Your task to perform on an android device: turn on showing notifications on the lock screen Image 0: 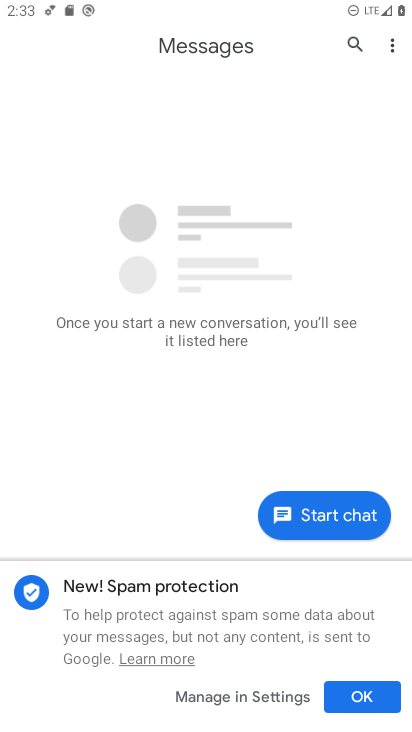
Step 0: press home button
Your task to perform on an android device: turn on showing notifications on the lock screen Image 1: 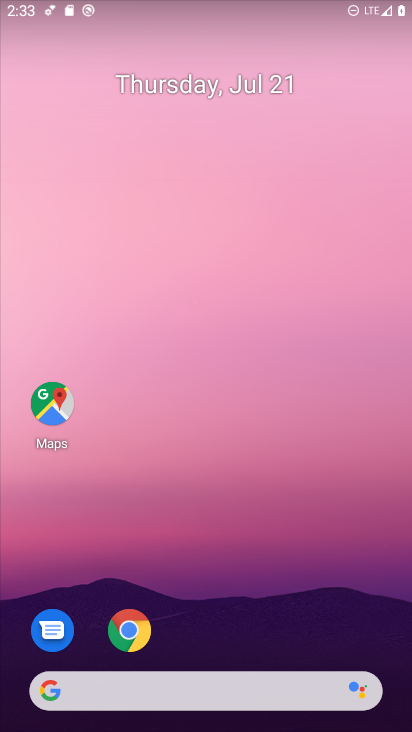
Step 1: drag from (333, 572) to (291, 0)
Your task to perform on an android device: turn on showing notifications on the lock screen Image 2: 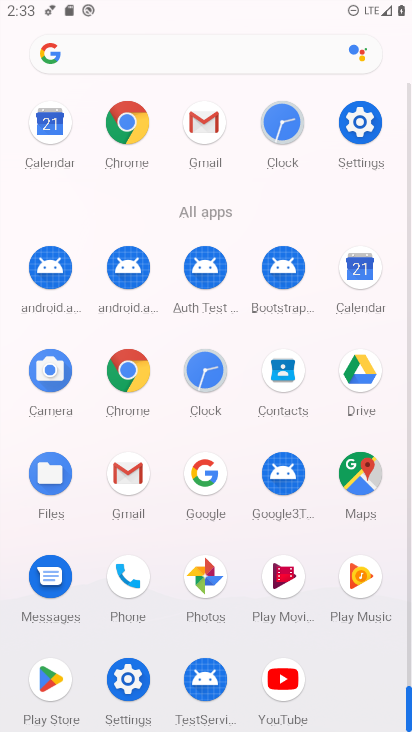
Step 2: click (124, 675)
Your task to perform on an android device: turn on showing notifications on the lock screen Image 3: 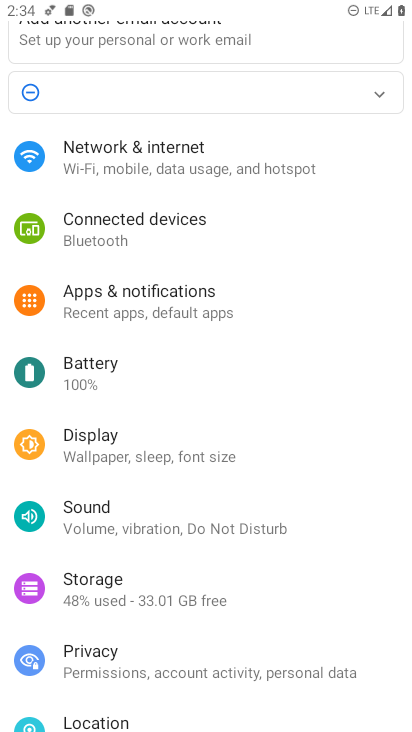
Step 3: click (152, 303)
Your task to perform on an android device: turn on showing notifications on the lock screen Image 4: 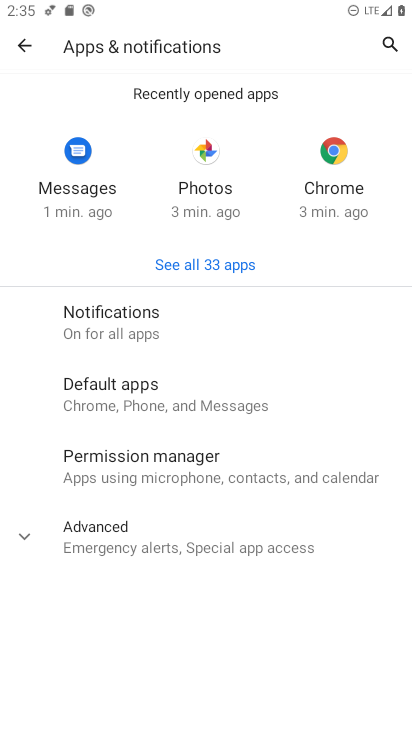
Step 4: click (159, 339)
Your task to perform on an android device: turn on showing notifications on the lock screen Image 5: 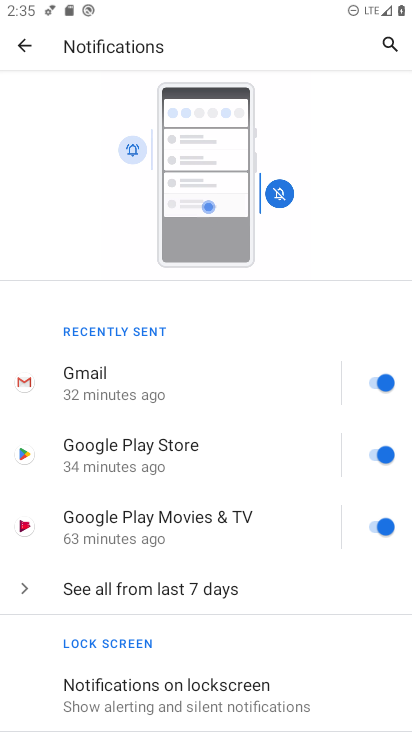
Step 5: click (228, 688)
Your task to perform on an android device: turn on showing notifications on the lock screen Image 6: 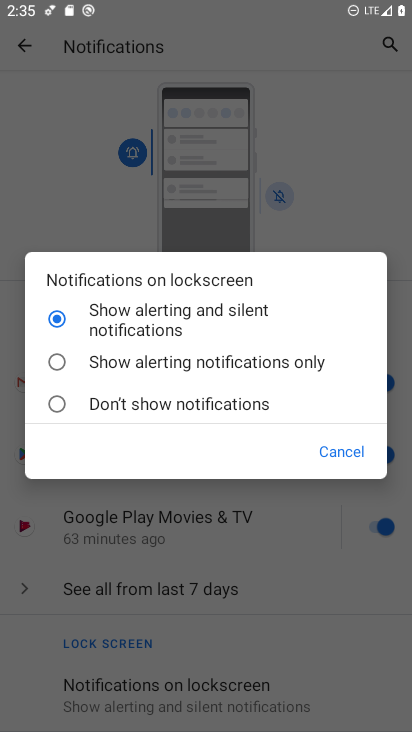
Step 6: task complete